Your task to perform on an android device: Open eBay Image 0: 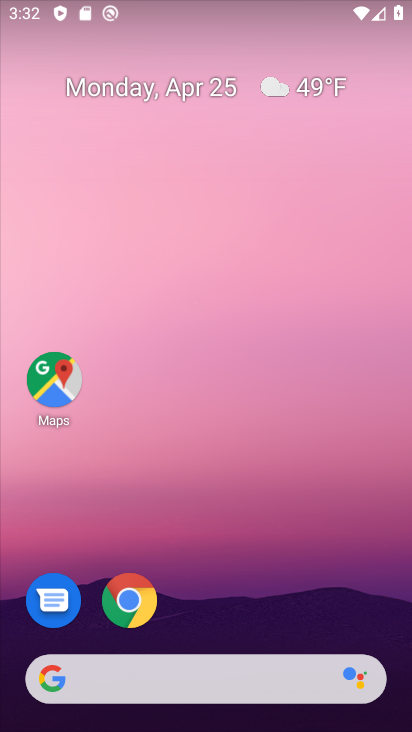
Step 0: click (234, 684)
Your task to perform on an android device: Open eBay Image 1: 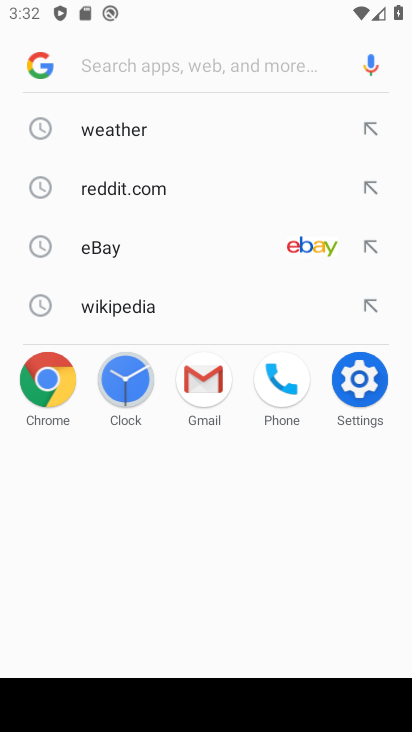
Step 1: click (302, 246)
Your task to perform on an android device: Open eBay Image 2: 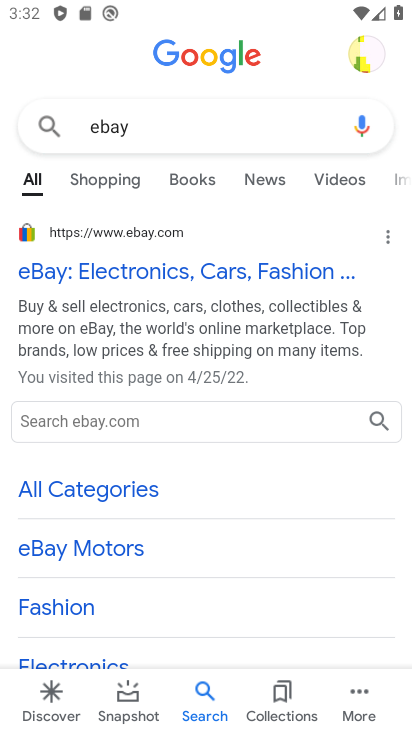
Step 2: task complete